Your task to perform on an android device: turn on bluetooth scan Image 0: 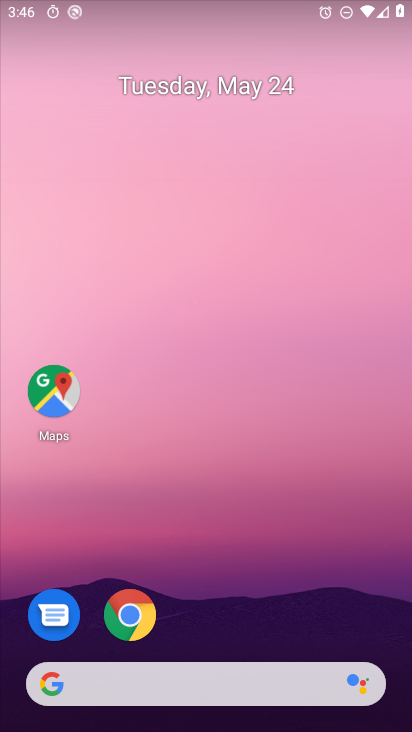
Step 0: drag from (184, 614) to (209, 248)
Your task to perform on an android device: turn on bluetooth scan Image 1: 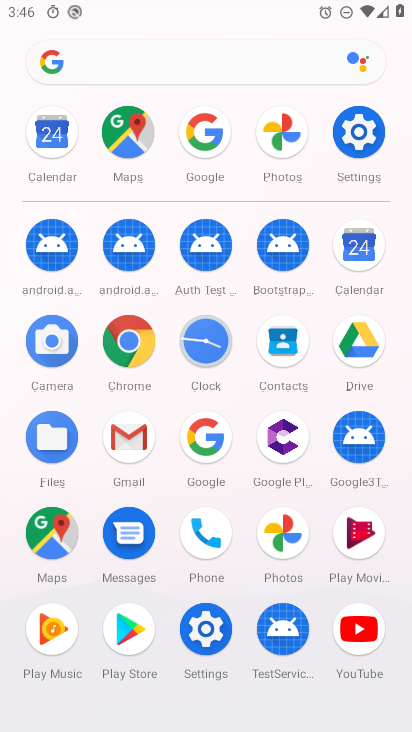
Step 1: click (368, 130)
Your task to perform on an android device: turn on bluetooth scan Image 2: 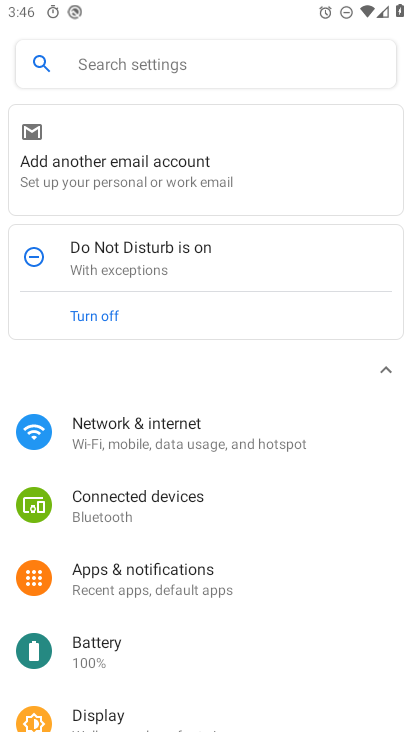
Step 2: drag from (124, 693) to (120, 353)
Your task to perform on an android device: turn on bluetooth scan Image 3: 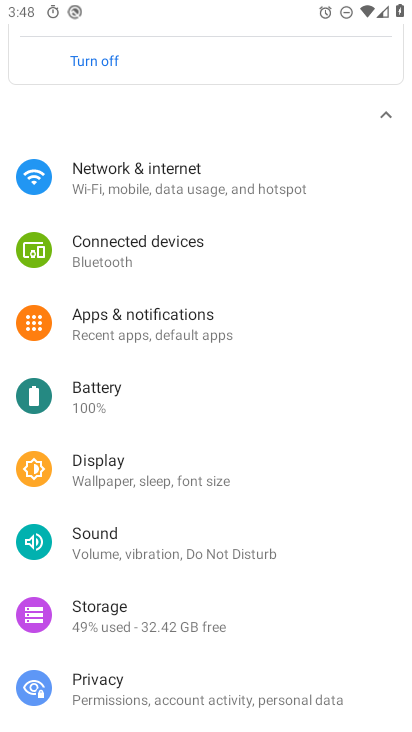
Step 3: drag from (171, 697) to (225, 234)
Your task to perform on an android device: turn on bluetooth scan Image 4: 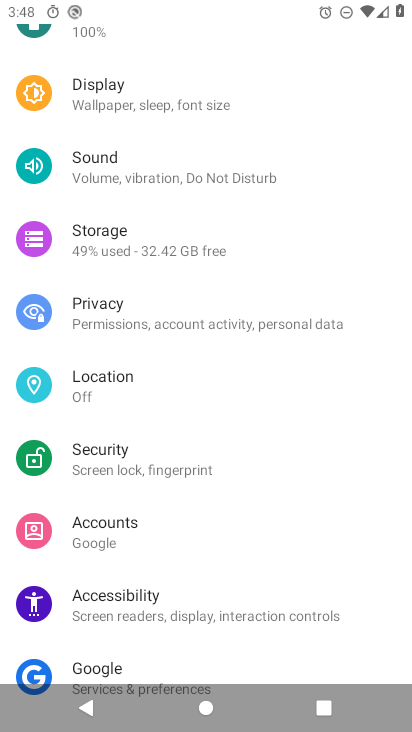
Step 4: click (118, 382)
Your task to perform on an android device: turn on bluetooth scan Image 5: 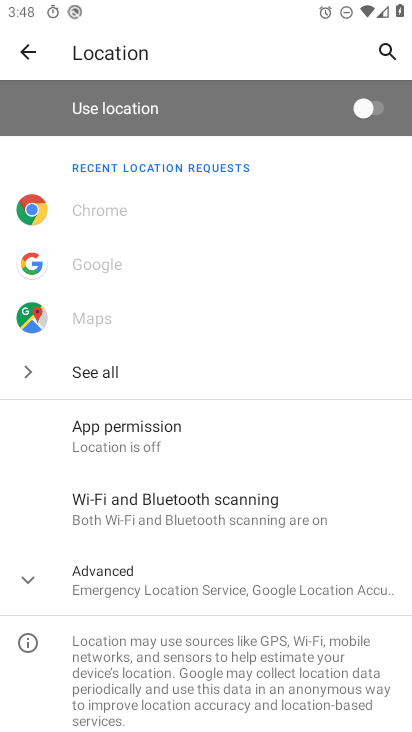
Step 5: click (140, 500)
Your task to perform on an android device: turn on bluetooth scan Image 6: 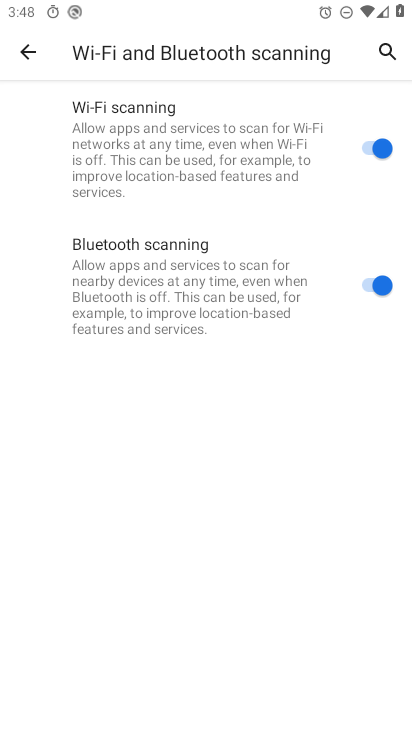
Step 6: task complete